Your task to perform on an android device: make emails show in primary in the gmail app Image 0: 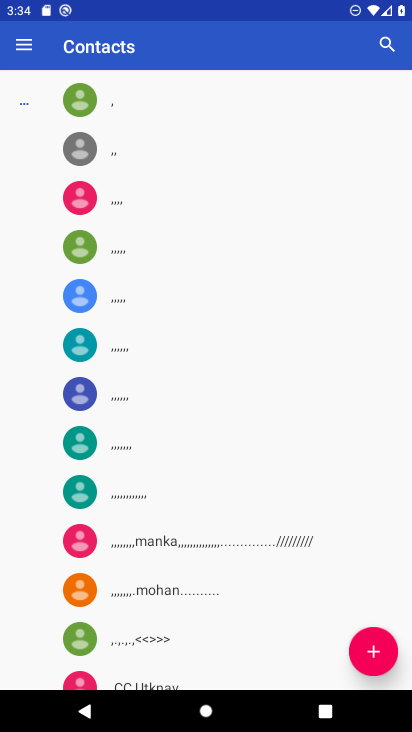
Step 0: press home button
Your task to perform on an android device: make emails show in primary in the gmail app Image 1: 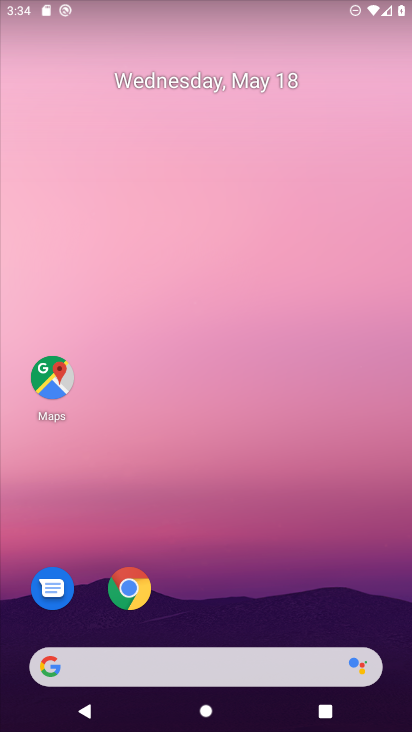
Step 1: drag from (247, 610) to (321, 214)
Your task to perform on an android device: make emails show in primary in the gmail app Image 2: 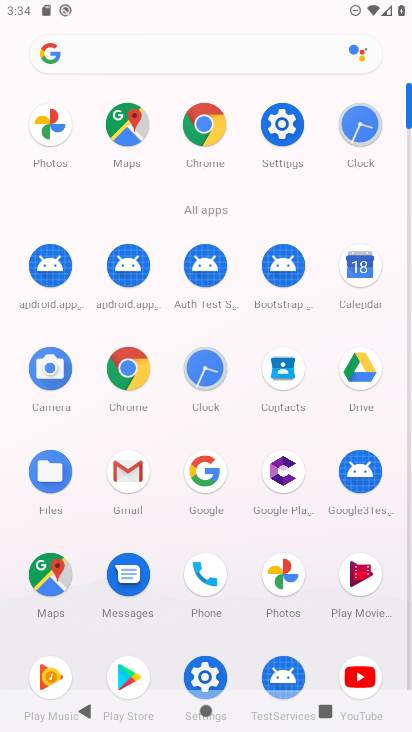
Step 2: click (126, 461)
Your task to perform on an android device: make emails show in primary in the gmail app Image 3: 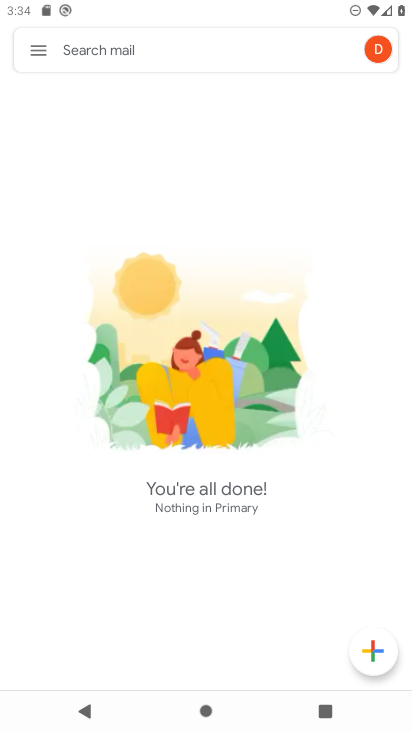
Step 3: click (37, 58)
Your task to perform on an android device: make emails show in primary in the gmail app Image 4: 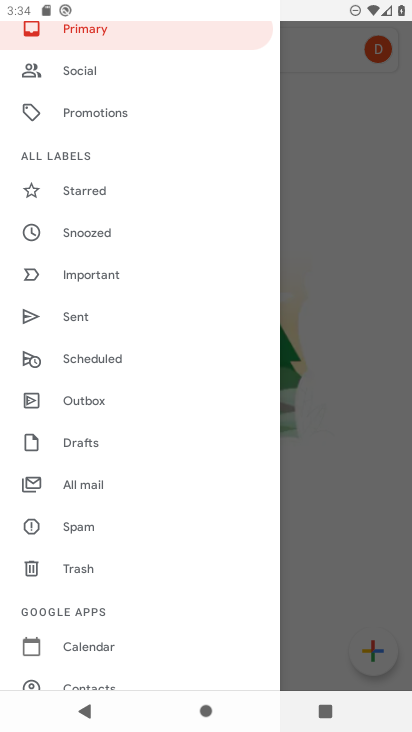
Step 4: drag from (73, 648) to (88, 304)
Your task to perform on an android device: make emails show in primary in the gmail app Image 5: 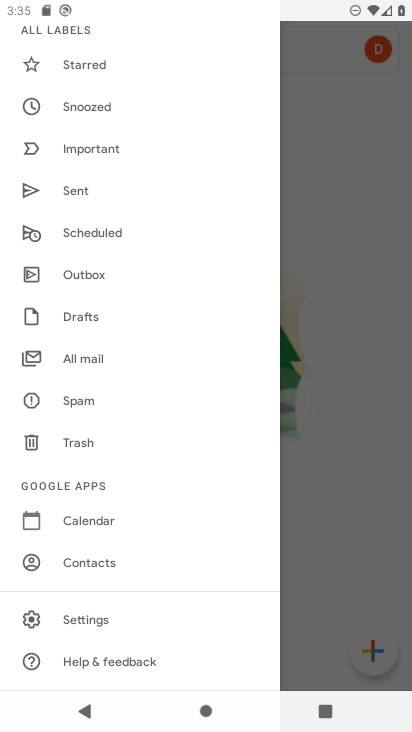
Step 5: click (97, 601)
Your task to perform on an android device: make emails show in primary in the gmail app Image 6: 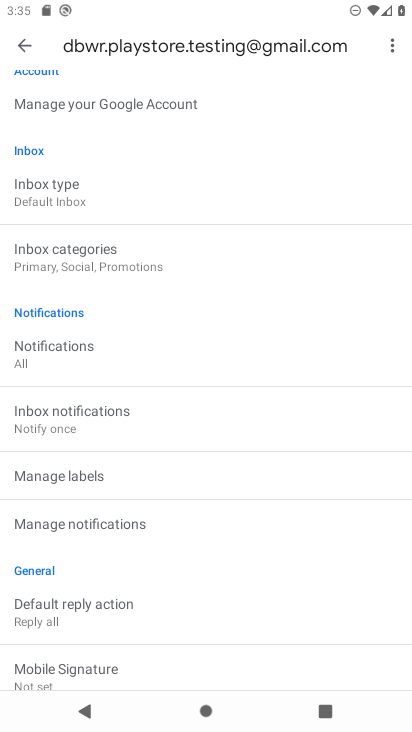
Step 6: click (150, 250)
Your task to perform on an android device: make emails show in primary in the gmail app Image 7: 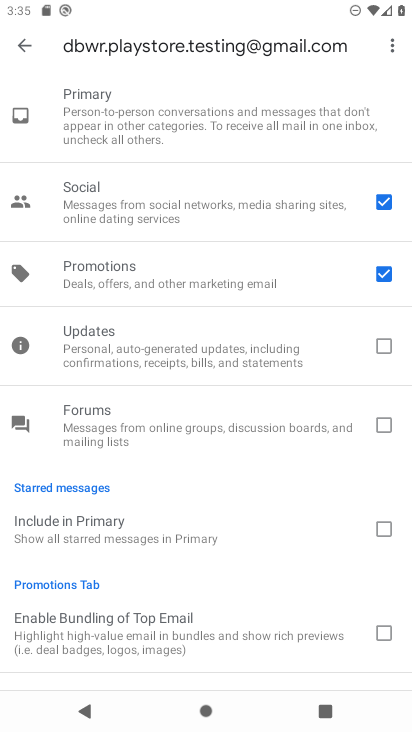
Step 7: click (393, 340)
Your task to perform on an android device: make emails show in primary in the gmail app Image 8: 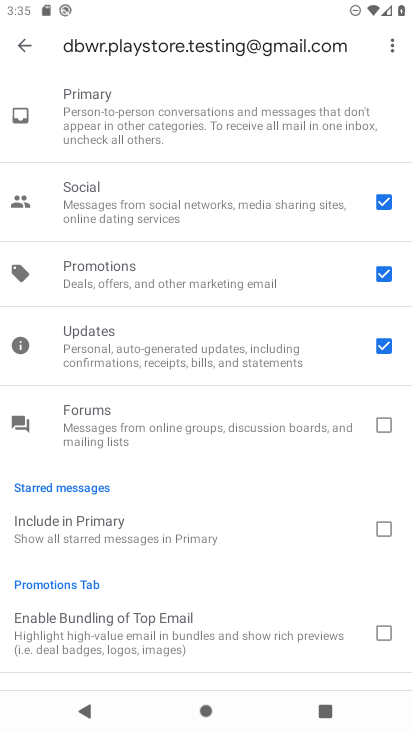
Step 8: task complete